Your task to perform on an android device: set an alarm Image 0: 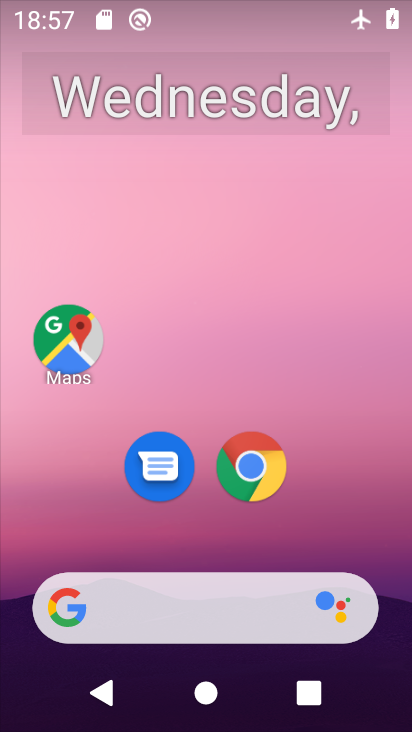
Step 0: drag from (340, 517) to (253, 29)
Your task to perform on an android device: set an alarm Image 1: 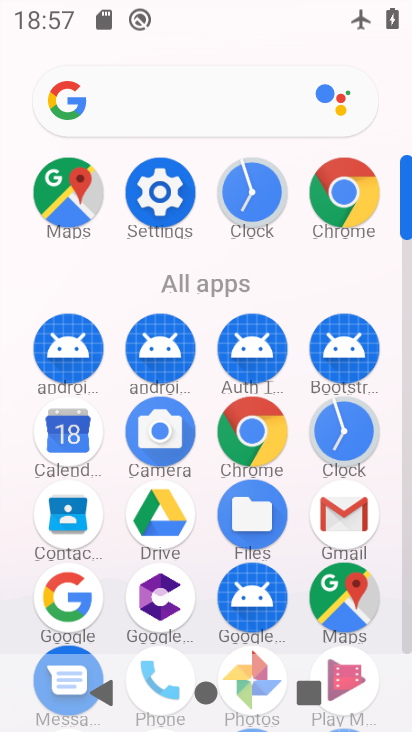
Step 1: click (254, 190)
Your task to perform on an android device: set an alarm Image 2: 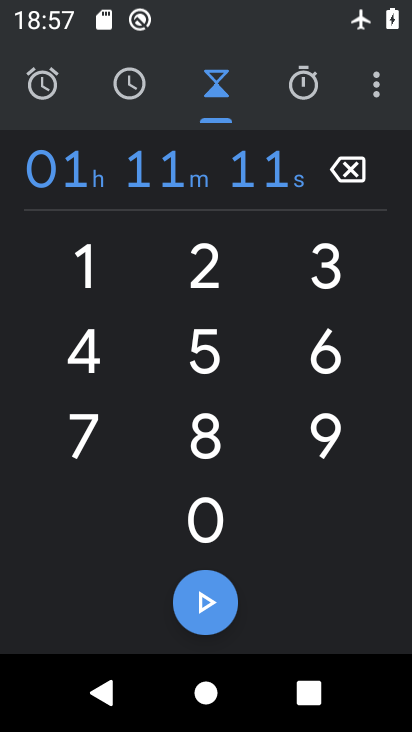
Step 2: click (38, 75)
Your task to perform on an android device: set an alarm Image 3: 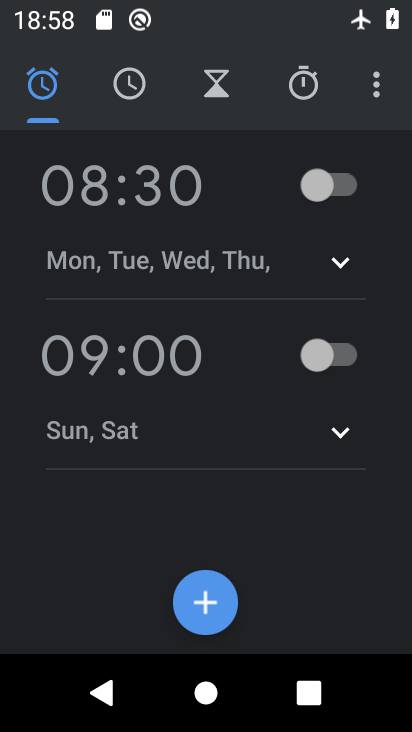
Step 3: click (204, 601)
Your task to perform on an android device: set an alarm Image 4: 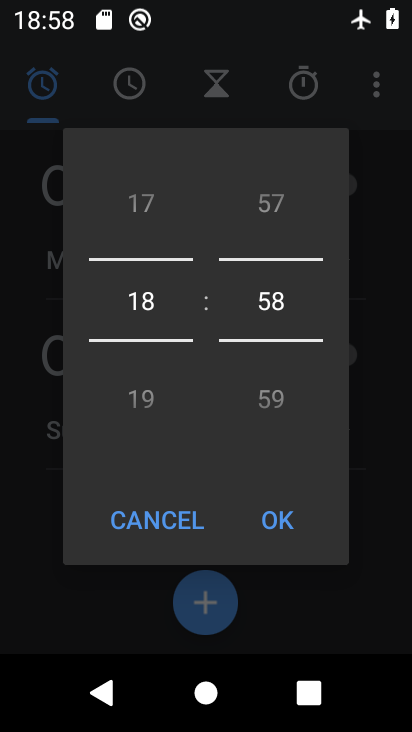
Step 4: click (275, 515)
Your task to perform on an android device: set an alarm Image 5: 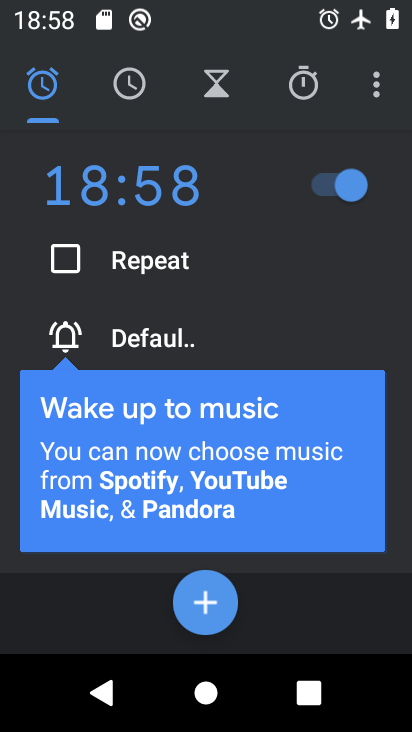
Step 5: task complete